Your task to perform on an android device: Search for "usb-b" on amazon.com, select the first entry, and add it to the cart. Image 0: 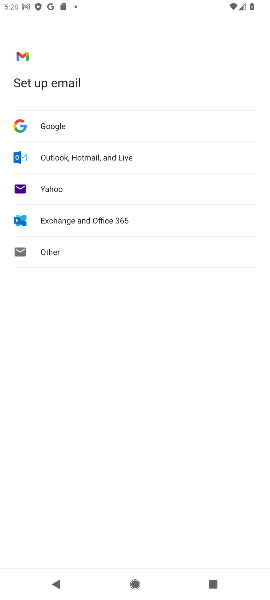
Step 0: press home button
Your task to perform on an android device: Search for "usb-b" on amazon.com, select the first entry, and add it to the cart. Image 1: 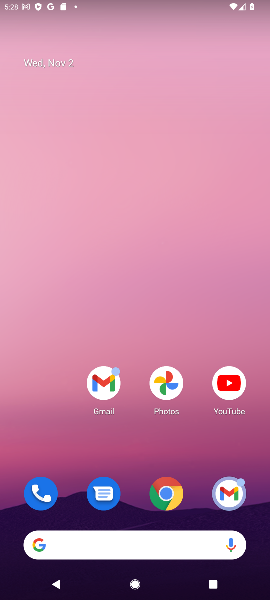
Step 1: drag from (95, 505) to (105, 185)
Your task to perform on an android device: Search for "usb-b" on amazon.com, select the first entry, and add it to the cart. Image 2: 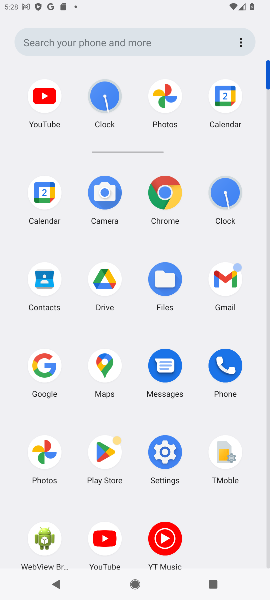
Step 2: click (33, 357)
Your task to perform on an android device: Search for "usb-b" on amazon.com, select the first entry, and add it to the cart. Image 3: 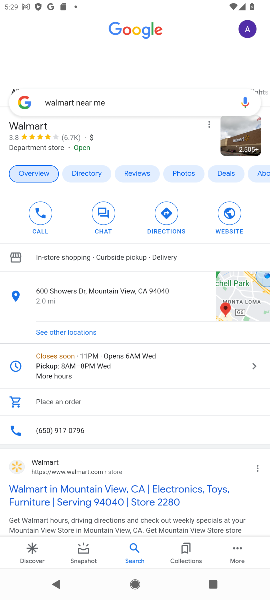
Step 3: click (107, 96)
Your task to perform on an android device: Search for "usb-b" on amazon.com, select the first entry, and add it to the cart. Image 4: 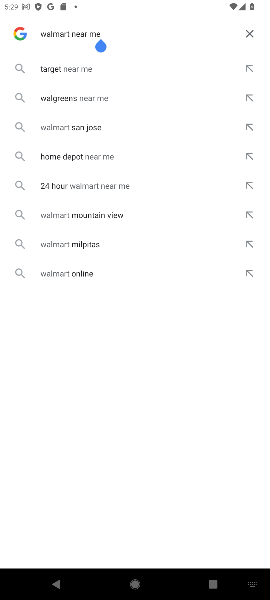
Step 4: click (248, 25)
Your task to perform on an android device: Search for "usb-b" on amazon.com, select the first entry, and add it to the cart. Image 5: 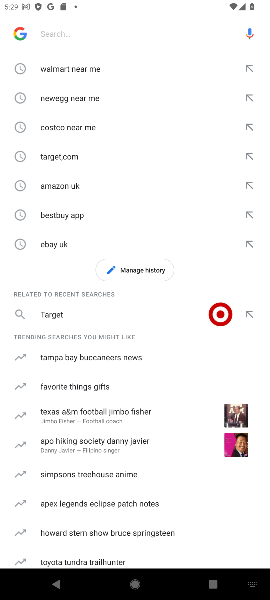
Step 5: click (57, 31)
Your task to perform on an android device: Search for "usb-b" on amazon.com, select the first entry, and add it to the cart. Image 6: 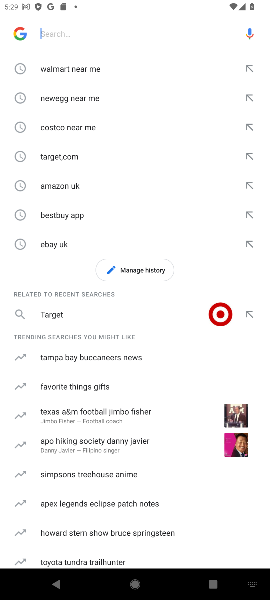
Step 6: type "amazon "
Your task to perform on an android device: Search for "usb-b" on amazon.com, select the first entry, and add it to the cart. Image 7: 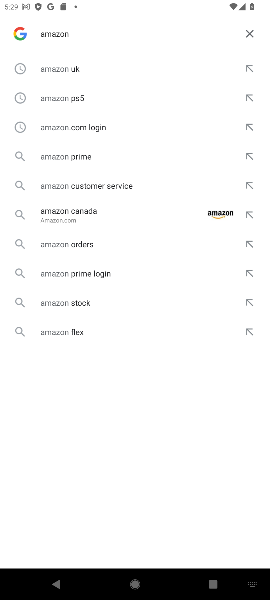
Step 7: click (47, 59)
Your task to perform on an android device: Search for "usb-b" on amazon.com, select the first entry, and add it to the cart. Image 8: 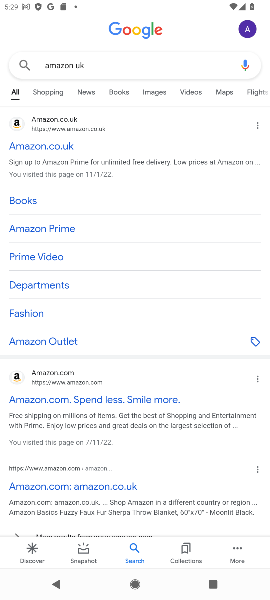
Step 8: click (26, 147)
Your task to perform on an android device: Search for "usb-b" on amazon.com, select the first entry, and add it to the cart. Image 9: 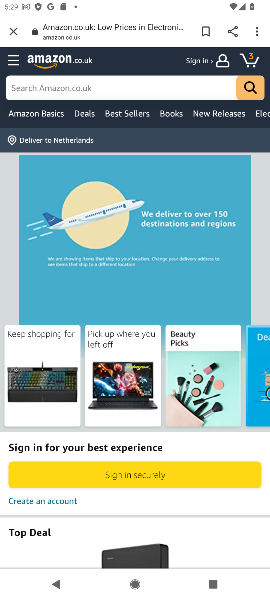
Step 9: click (104, 85)
Your task to perform on an android device: Search for "usb-b" on amazon.com, select the first entry, and add it to the cart. Image 10: 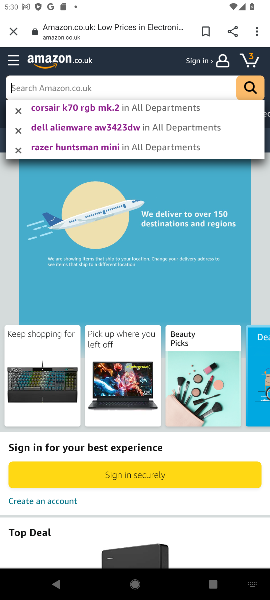
Step 10: click (82, 86)
Your task to perform on an android device: Search for "usb-b" on amazon.com, select the first entry, and add it to the cart. Image 11: 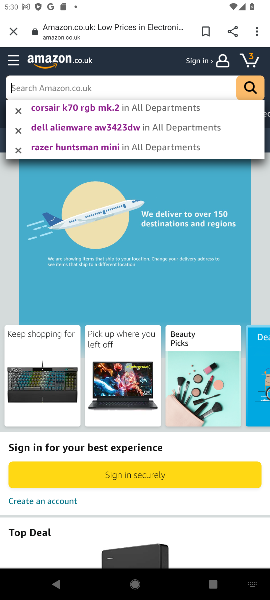
Step 11: type "usb-b "
Your task to perform on an android device: Search for "usb-b" on amazon.com, select the first entry, and add it to the cart. Image 12: 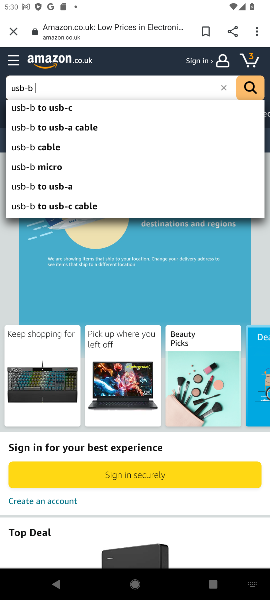
Step 12: click (45, 107)
Your task to perform on an android device: Search for "usb-b" on amazon.com, select the first entry, and add it to the cart. Image 13: 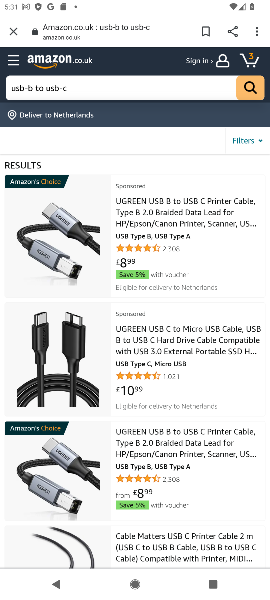
Step 13: click (157, 207)
Your task to perform on an android device: Search for "usb-b" on amazon.com, select the first entry, and add it to the cart. Image 14: 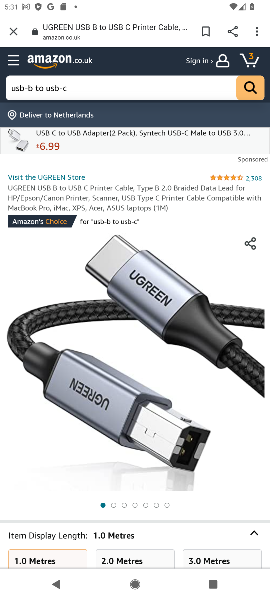
Step 14: drag from (159, 477) to (185, 224)
Your task to perform on an android device: Search for "usb-b" on amazon.com, select the first entry, and add it to the cart. Image 15: 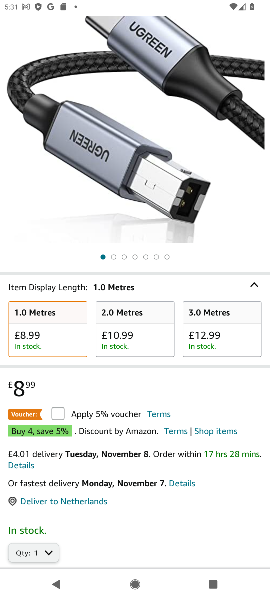
Step 15: drag from (60, 548) to (67, 260)
Your task to perform on an android device: Search for "usb-b" on amazon.com, select the first entry, and add it to the cart. Image 16: 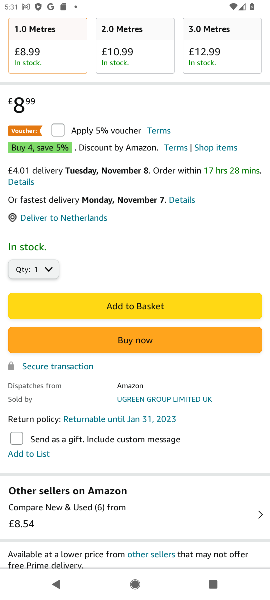
Step 16: click (138, 305)
Your task to perform on an android device: Search for "usb-b" on amazon.com, select the first entry, and add it to the cart. Image 17: 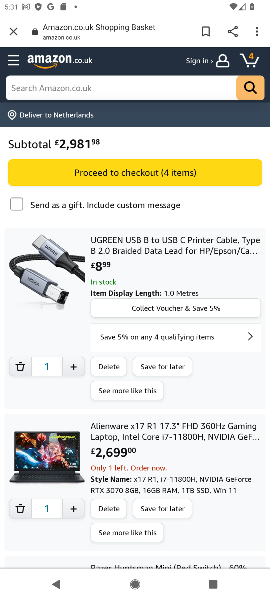
Step 17: task complete